Your task to perform on an android device: set the stopwatch Image 0: 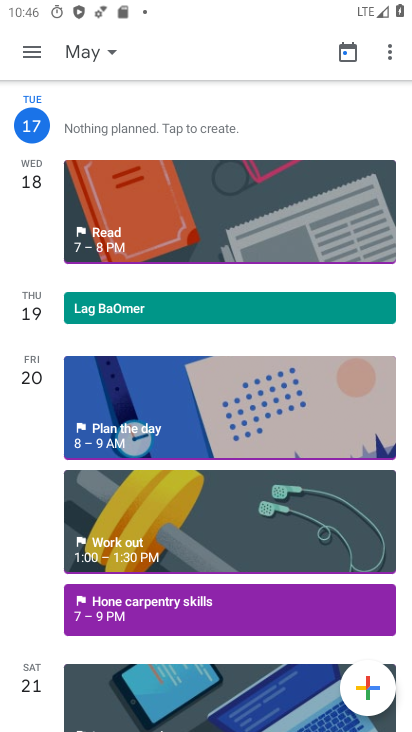
Step 0: press home button
Your task to perform on an android device: set the stopwatch Image 1: 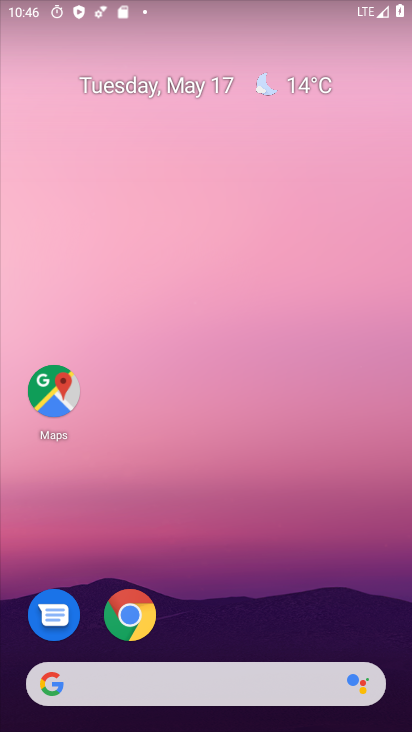
Step 1: drag from (199, 681) to (316, 274)
Your task to perform on an android device: set the stopwatch Image 2: 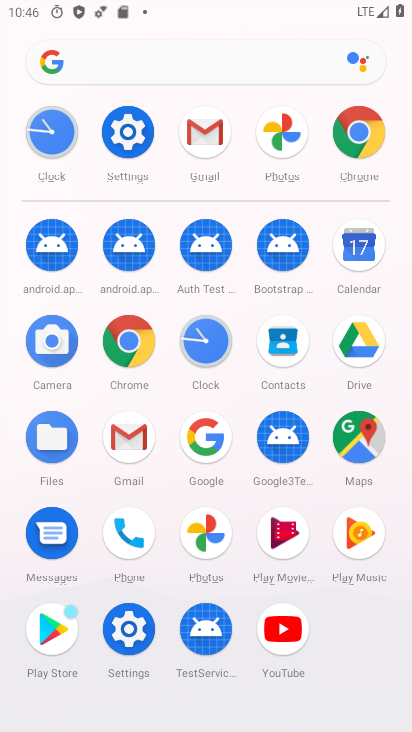
Step 2: click (206, 350)
Your task to perform on an android device: set the stopwatch Image 3: 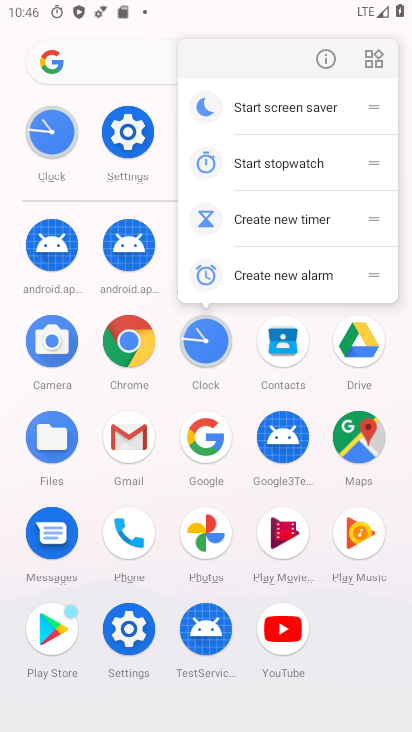
Step 3: click (206, 350)
Your task to perform on an android device: set the stopwatch Image 4: 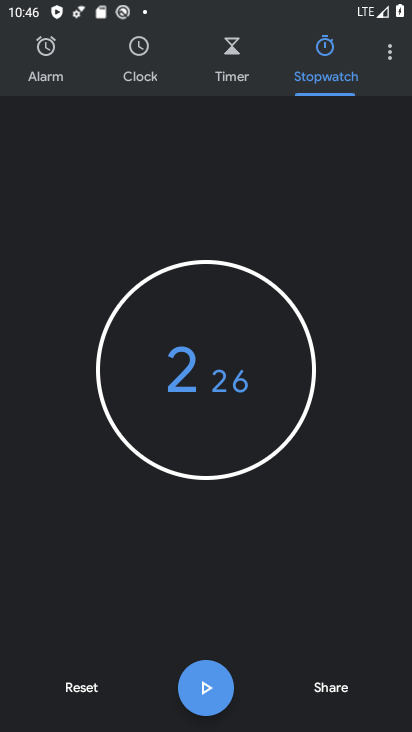
Step 4: click (103, 689)
Your task to perform on an android device: set the stopwatch Image 5: 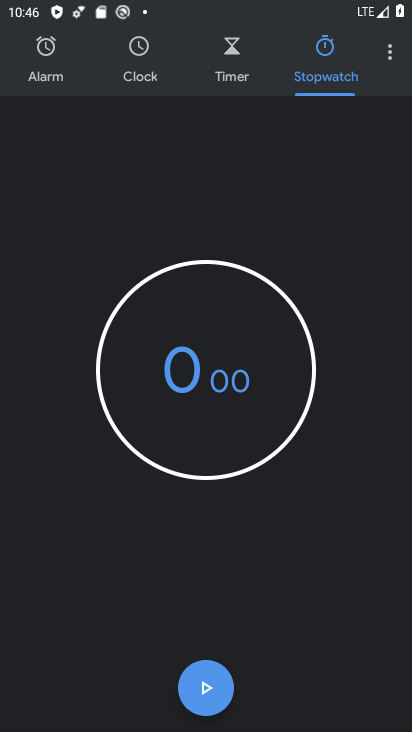
Step 5: click (196, 406)
Your task to perform on an android device: set the stopwatch Image 6: 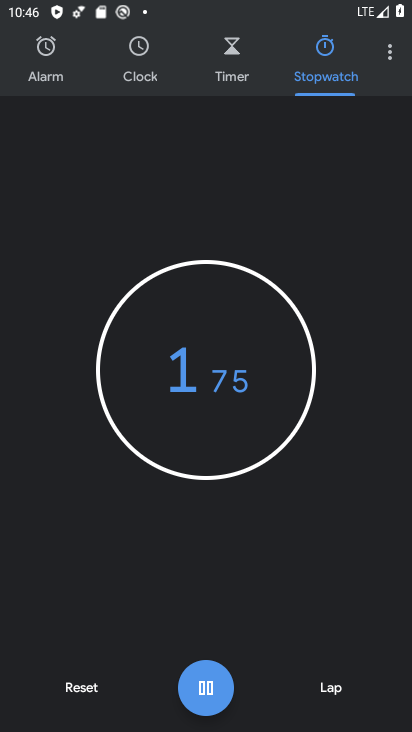
Step 6: click (202, 399)
Your task to perform on an android device: set the stopwatch Image 7: 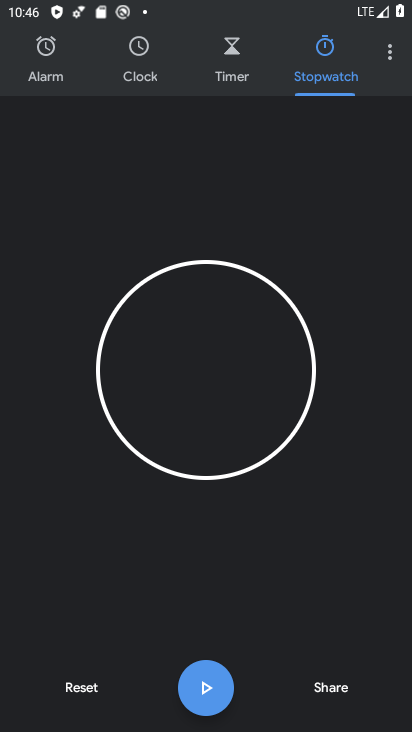
Step 7: task complete